Your task to perform on an android device: Open the phone app and click the voicemail tab. Image 0: 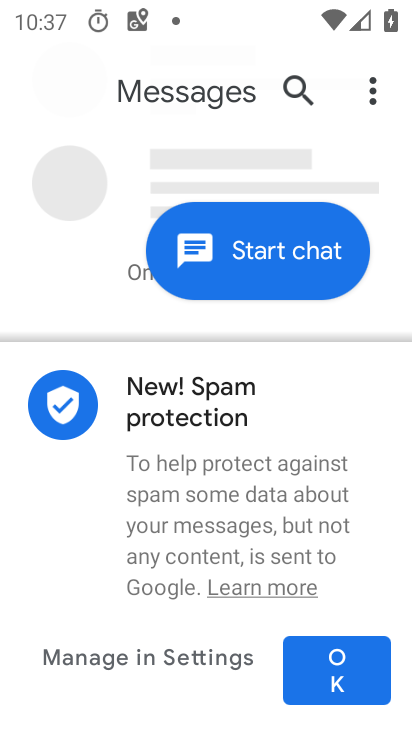
Step 0: press home button
Your task to perform on an android device: Open the phone app and click the voicemail tab. Image 1: 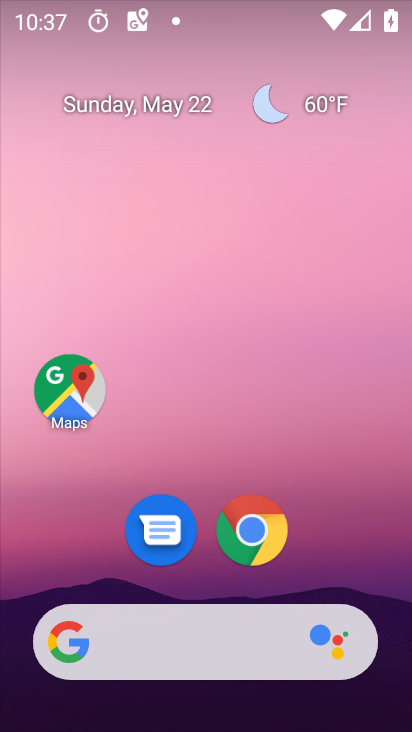
Step 1: drag from (394, 659) to (221, 524)
Your task to perform on an android device: Open the phone app and click the voicemail tab. Image 2: 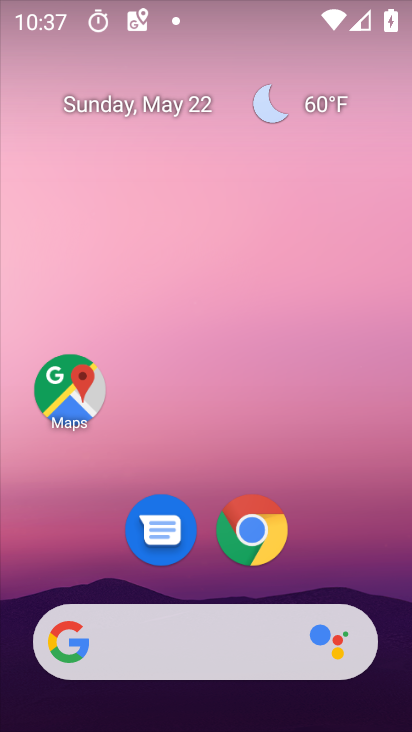
Step 2: drag from (361, 699) to (380, 19)
Your task to perform on an android device: Open the phone app and click the voicemail tab. Image 3: 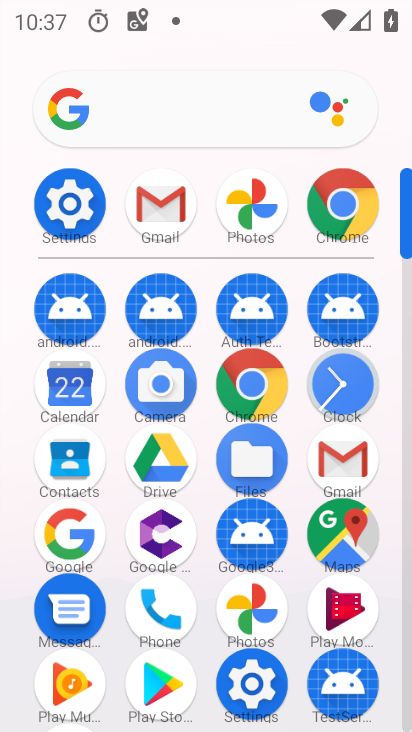
Step 3: click (177, 614)
Your task to perform on an android device: Open the phone app and click the voicemail tab. Image 4: 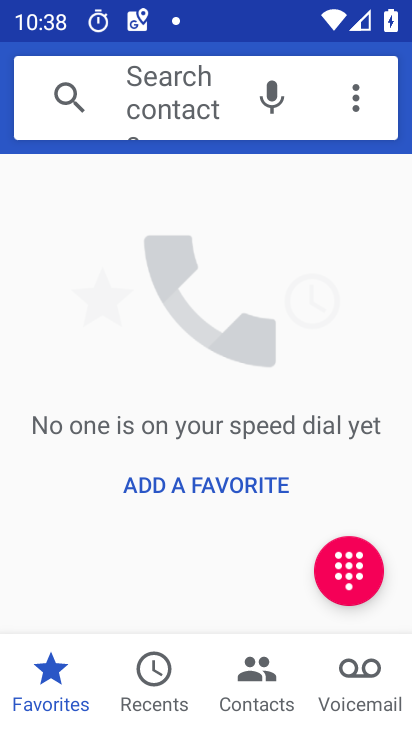
Step 4: click (360, 662)
Your task to perform on an android device: Open the phone app and click the voicemail tab. Image 5: 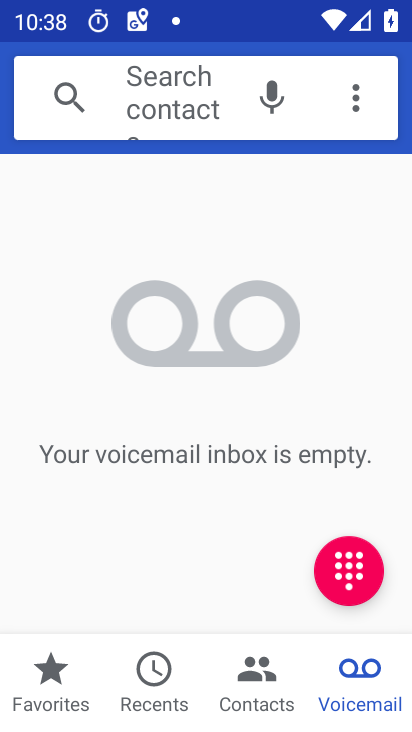
Step 5: task complete